Your task to perform on an android device: Search for sushi restaurants on Maps Image 0: 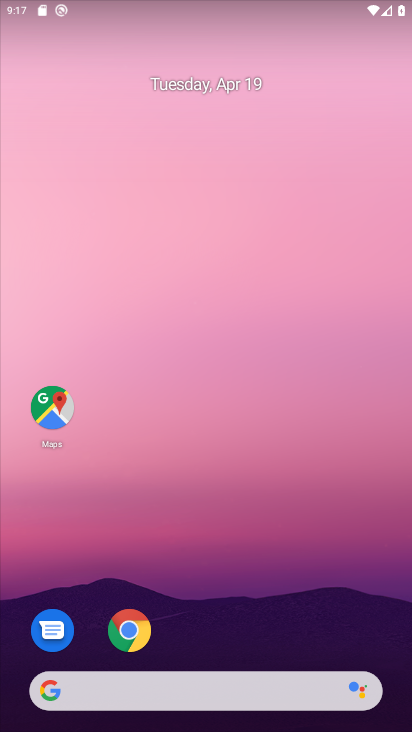
Step 0: drag from (294, 676) to (335, 151)
Your task to perform on an android device: Search for sushi restaurants on Maps Image 1: 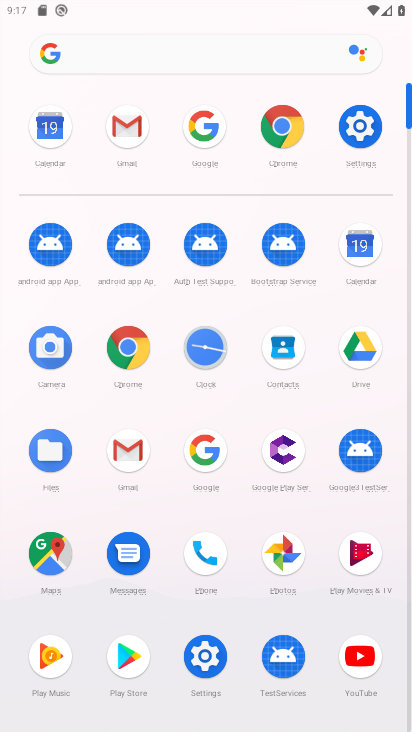
Step 1: click (52, 561)
Your task to perform on an android device: Search for sushi restaurants on Maps Image 2: 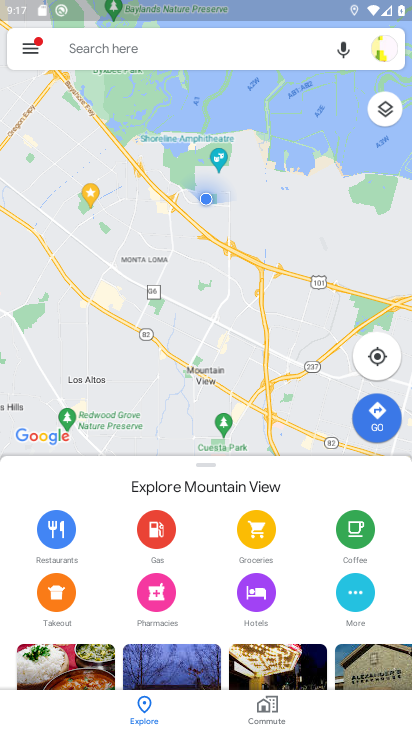
Step 2: click (206, 52)
Your task to perform on an android device: Search for sushi restaurants on Maps Image 3: 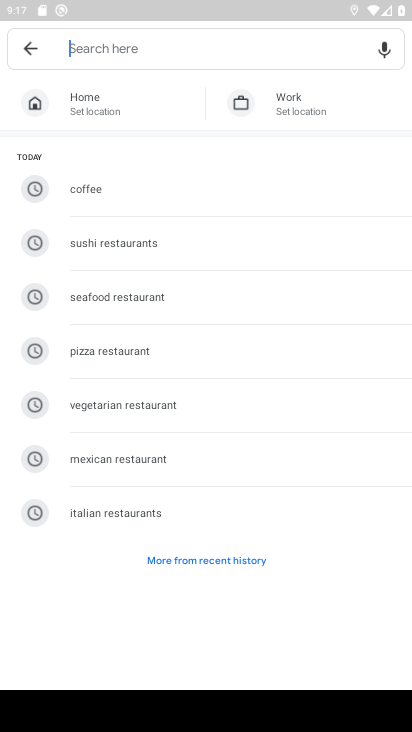
Step 3: click (136, 243)
Your task to perform on an android device: Search for sushi restaurants on Maps Image 4: 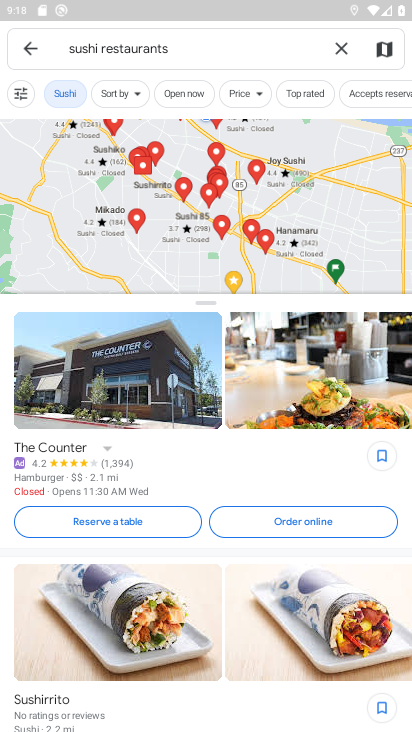
Step 4: task complete